Your task to perform on an android device: What's on the menu at Cheesecake Factory? Image 0: 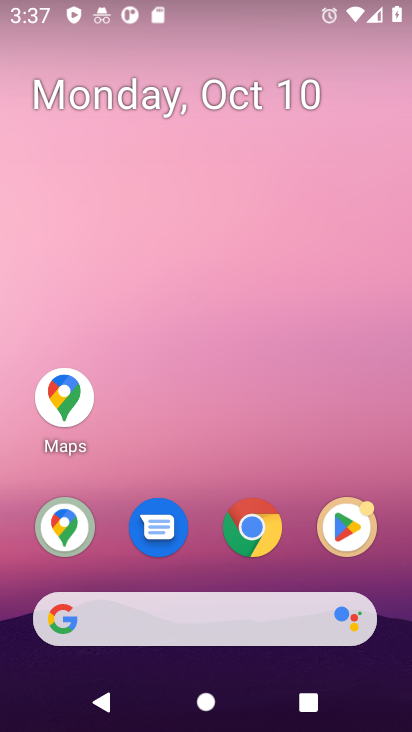
Step 0: click (253, 526)
Your task to perform on an android device: What's on the menu at Cheesecake Factory? Image 1: 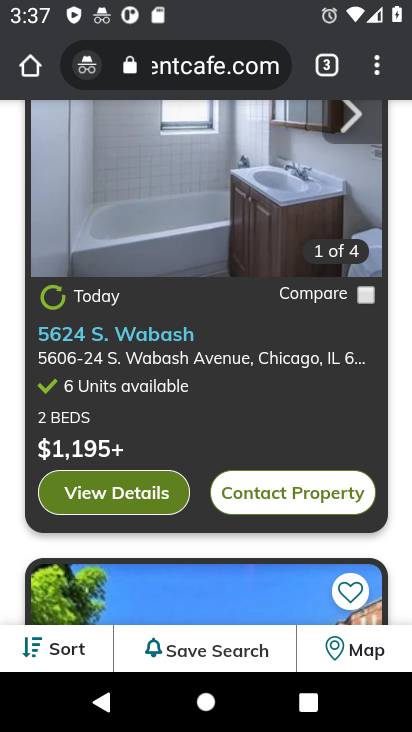
Step 1: click (252, 61)
Your task to perform on an android device: What's on the menu at Cheesecake Factory? Image 2: 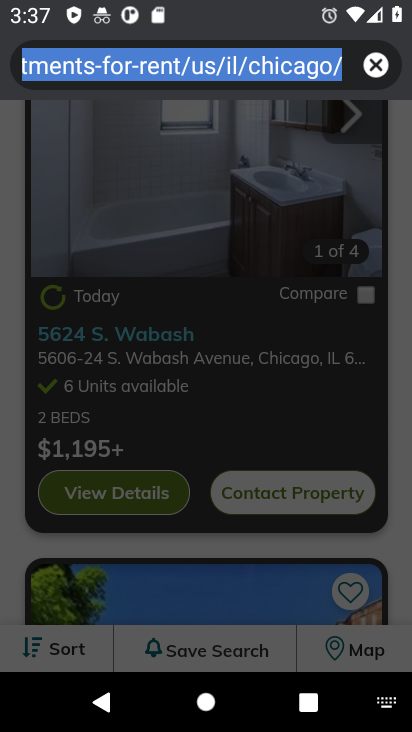
Step 2: click (377, 64)
Your task to perform on an android device: What's on the menu at Cheesecake Factory? Image 3: 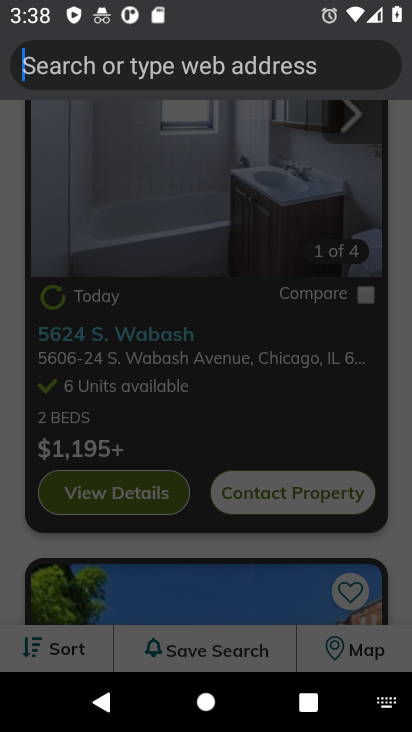
Step 3: type "Menu at Cheesecake Factory"
Your task to perform on an android device: What's on the menu at Cheesecake Factory? Image 4: 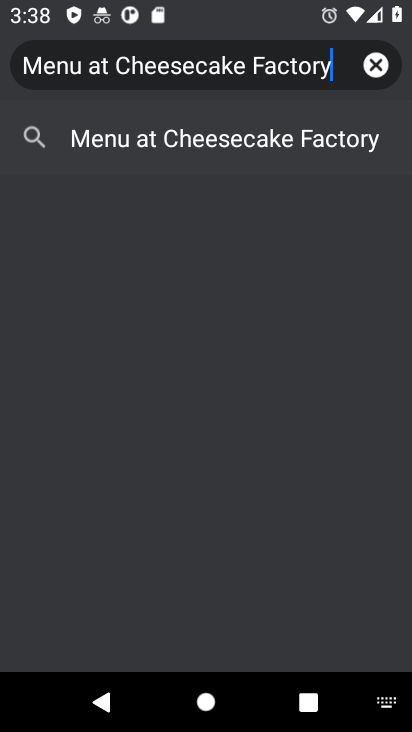
Step 4: click (129, 140)
Your task to perform on an android device: What's on the menu at Cheesecake Factory? Image 5: 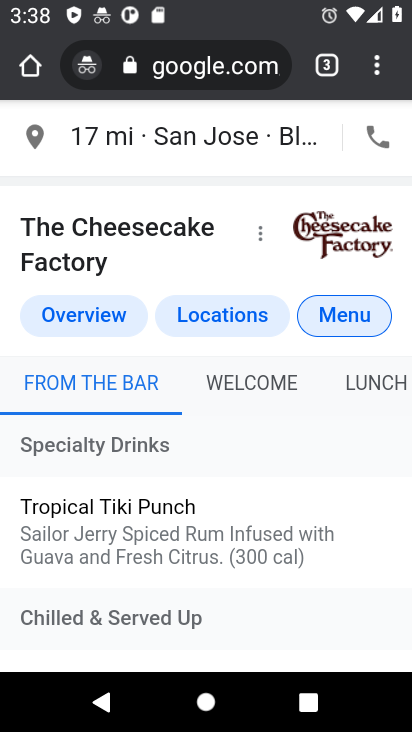
Step 5: drag from (196, 527) to (286, 418)
Your task to perform on an android device: What's on the menu at Cheesecake Factory? Image 6: 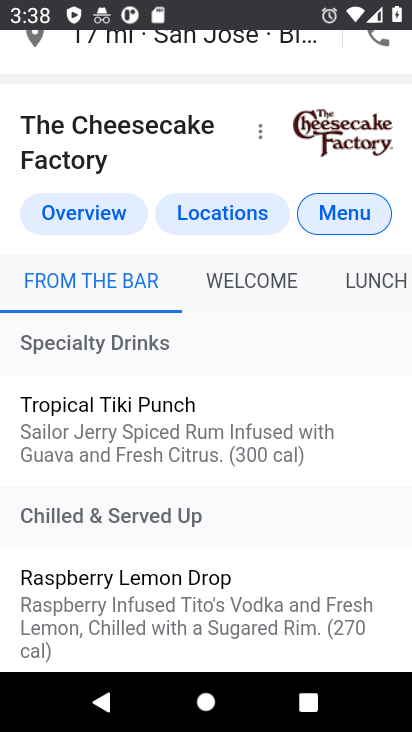
Step 6: drag from (229, 562) to (304, 420)
Your task to perform on an android device: What's on the menu at Cheesecake Factory? Image 7: 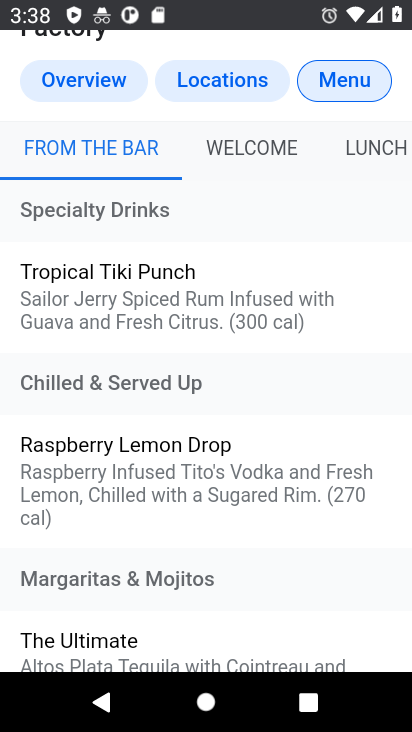
Step 7: drag from (220, 533) to (296, 419)
Your task to perform on an android device: What's on the menu at Cheesecake Factory? Image 8: 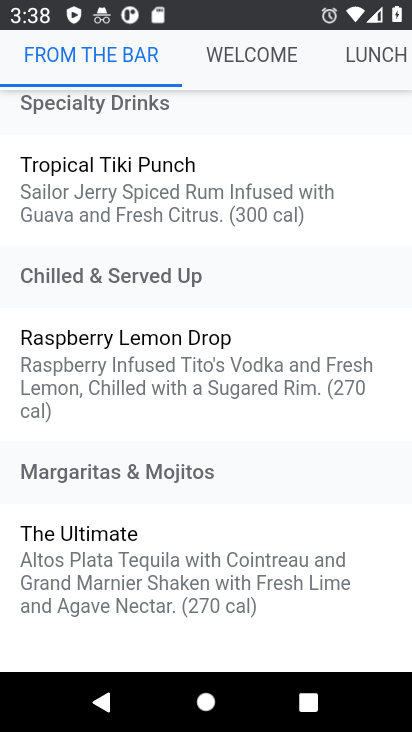
Step 8: drag from (173, 586) to (246, 464)
Your task to perform on an android device: What's on the menu at Cheesecake Factory? Image 9: 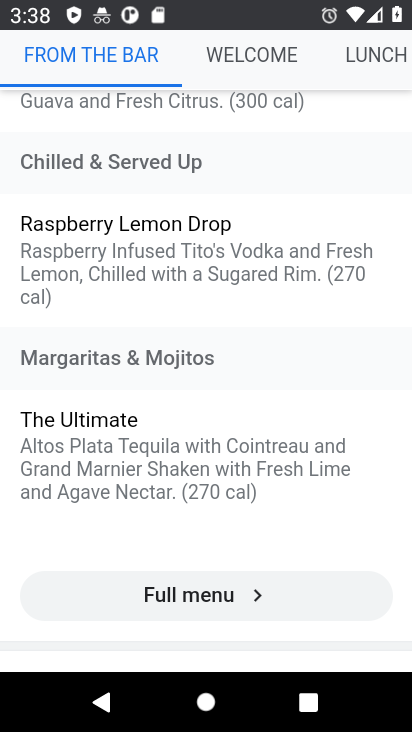
Step 9: click (195, 595)
Your task to perform on an android device: What's on the menu at Cheesecake Factory? Image 10: 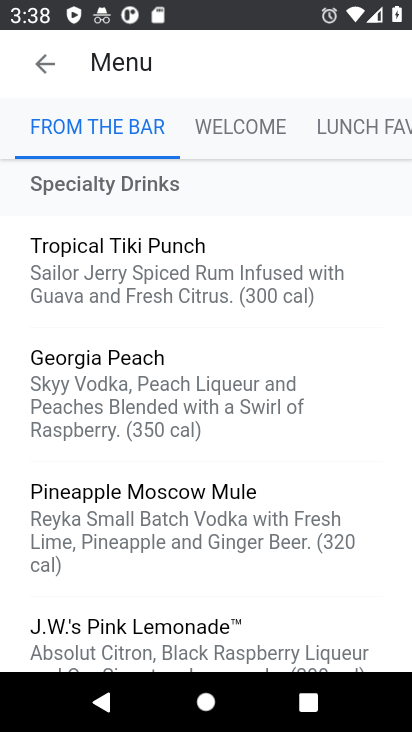
Step 10: task complete